Your task to perform on an android device: toggle sleep mode Image 0: 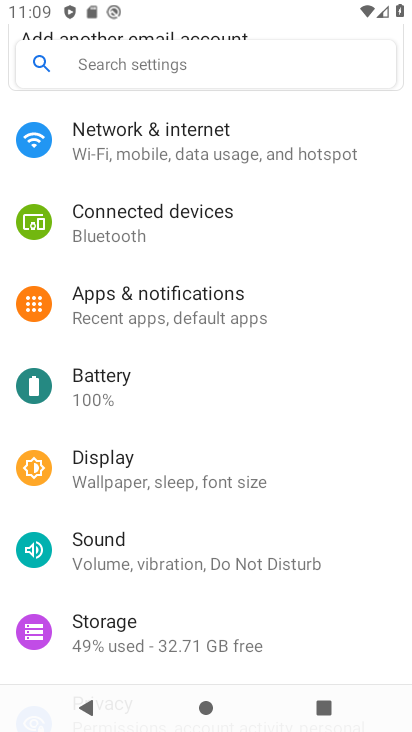
Step 0: drag from (338, 507) to (358, 323)
Your task to perform on an android device: toggle sleep mode Image 1: 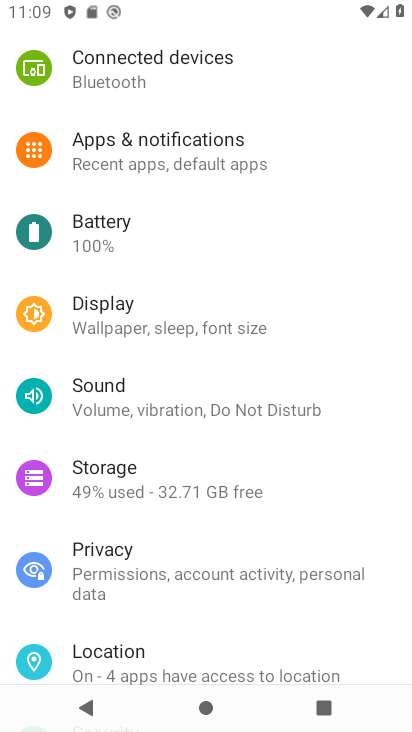
Step 1: drag from (364, 632) to (363, 412)
Your task to perform on an android device: toggle sleep mode Image 2: 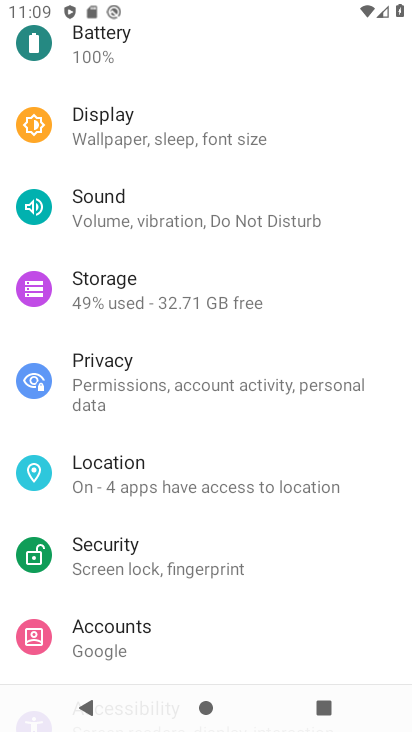
Step 2: drag from (358, 582) to (350, 305)
Your task to perform on an android device: toggle sleep mode Image 3: 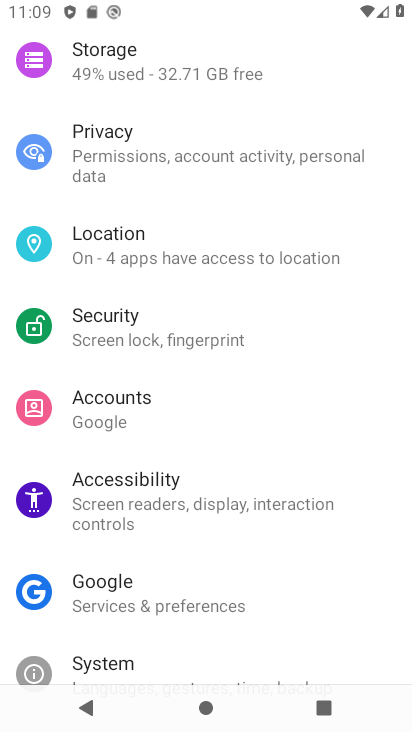
Step 3: drag from (368, 543) to (369, 327)
Your task to perform on an android device: toggle sleep mode Image 4: 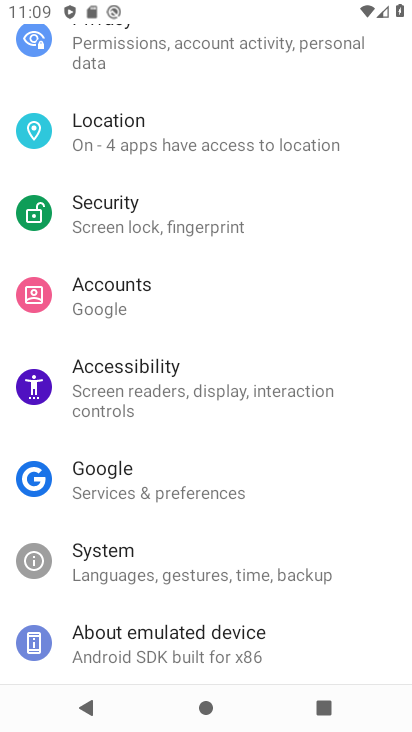
Step 4: drag from (372, 275) to (372, 456)
Your task to perform on an android device: toggle sleep mode Image 5: 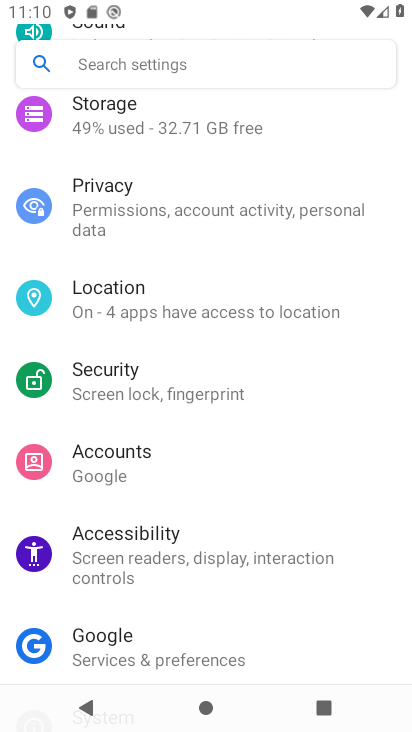
Step 5: drag from (365, 246) to (353, 435)
Your task to perform on an android device: toggle sleep mode Image 6: 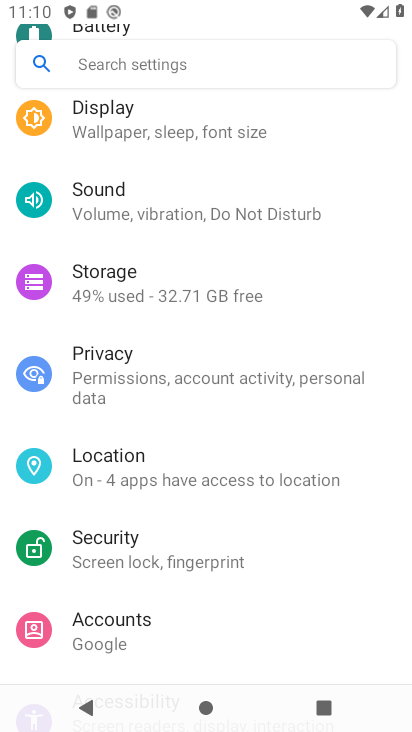
Step 6: drag from (348, 244) to (346, 452)
Your task to perform on an android device: toggle sleep mode Image 7: 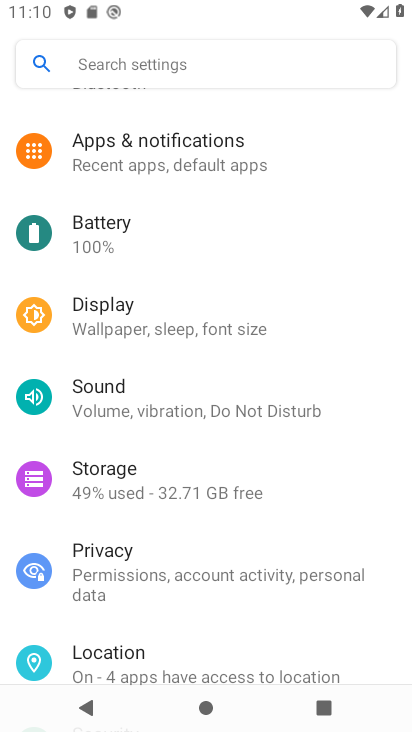
Step 7: drag from (349, 223) to (332, 477)
Your task to perform on an android device: toggle sleep mode Image 8: 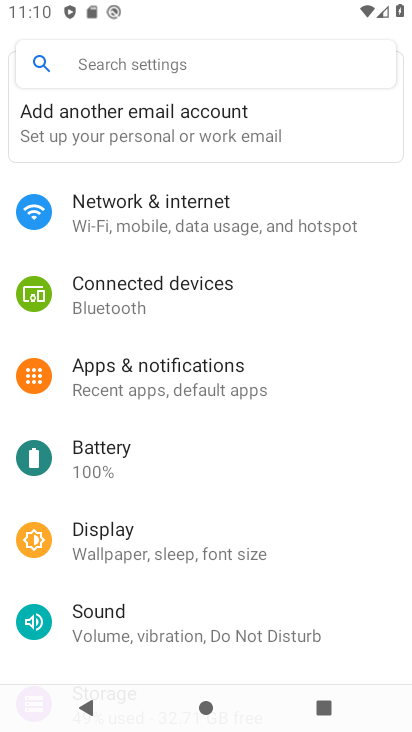
Step 8: drag from (338, 253) to (347, 483)
Your task to perform on an android device: toggle sleep mode Image 9: 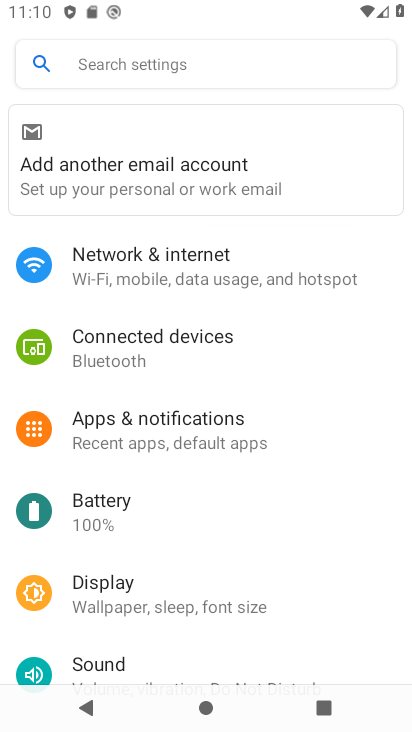
Step 9: drag from (352, 523) to (354, 322)
Your task to perform on an android device: toggle sleep mode Image 10: 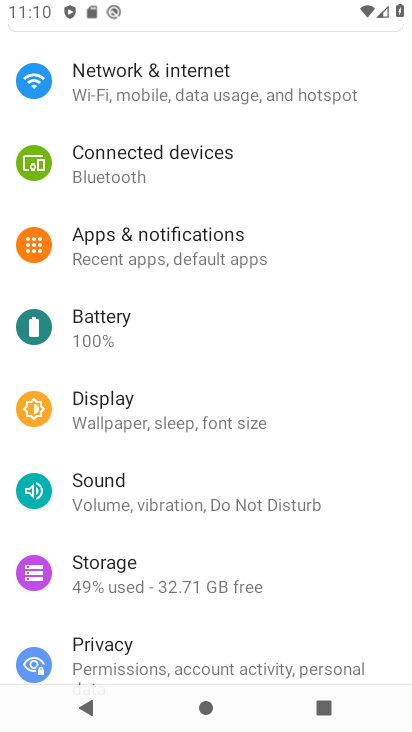
Step 10: click (225, 428)
Your task to perform on an android device: toggle sleep mode Image 11: 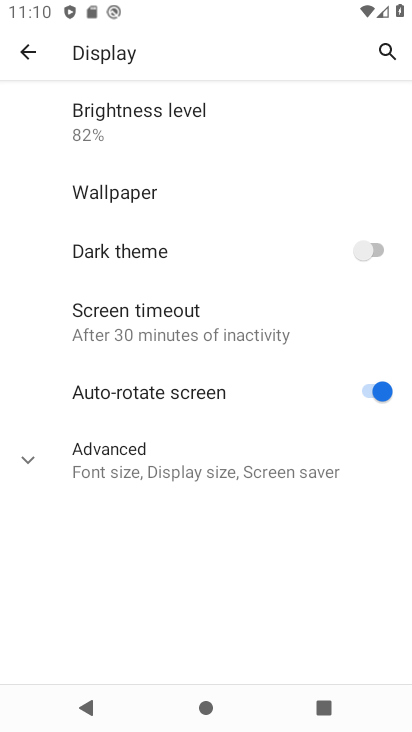
Step 11: click (250, 481)
Your task to perform on an android device: toggle sleep mode Image 12: 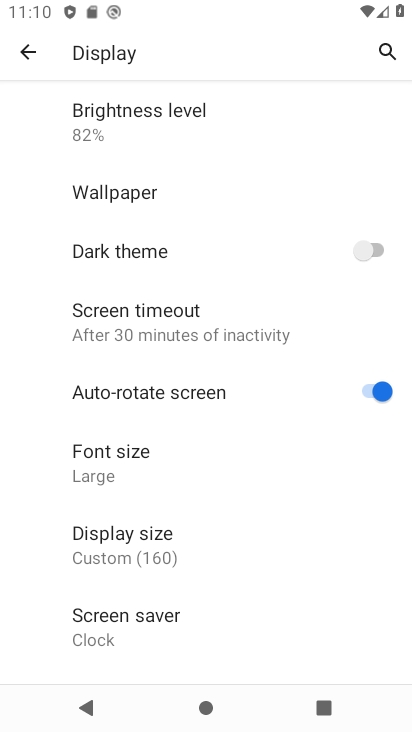
Step 12: task complete